Your task to perform on an android device: Open internet settings Image 0: 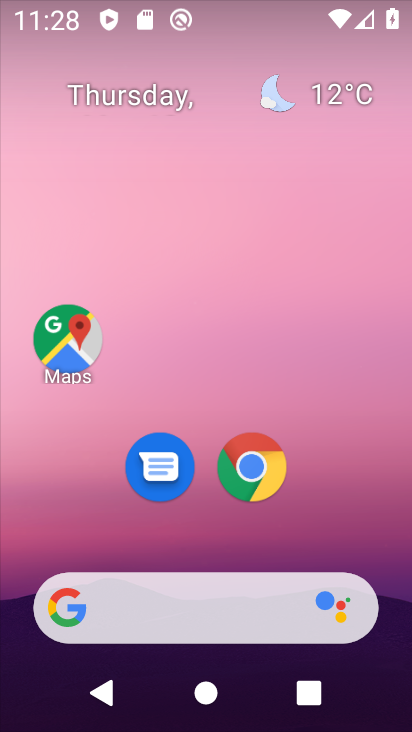
Step 0: drag from (372, 524) to (403, 33)
Your task to perform on an android device: Open internet settings Image 1: 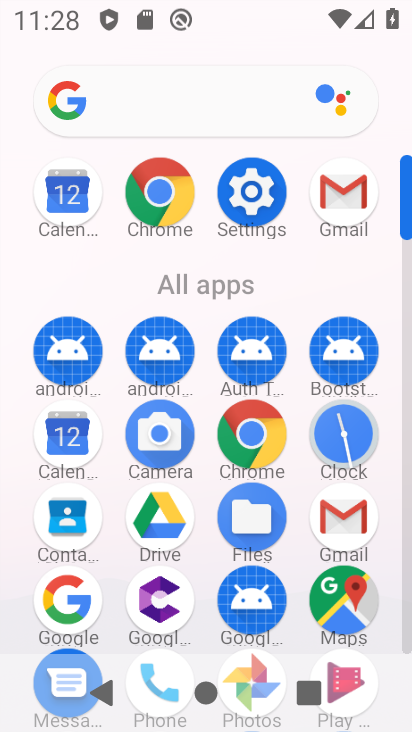
Step 1: click (255, 186)
Your task to perform on an android device: Open internet settings Image 2: 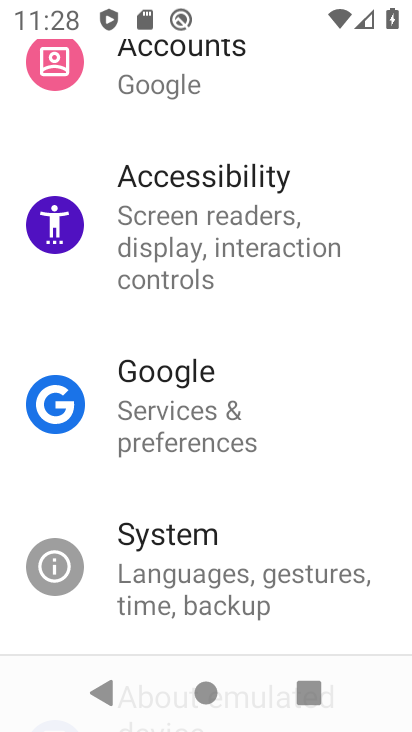
Step 2: drag from (258, 122) to (247, 568)
Your task to perform on an android device: Open internet settings Image 3: 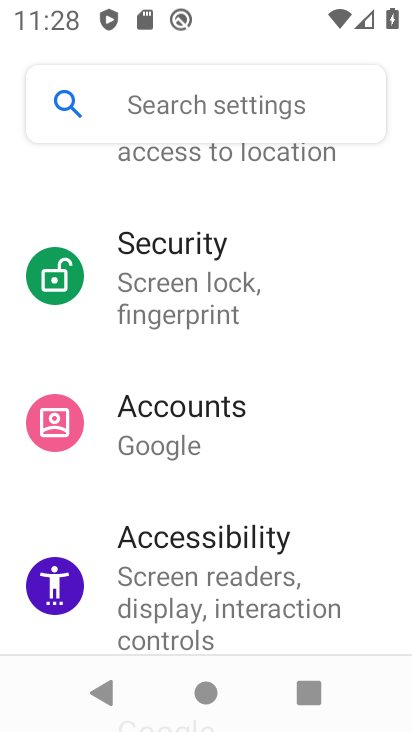
Step 3: drag from (192, 237) to (229, 607)
Your task to perform on an android device: Open internet settings Image 4: 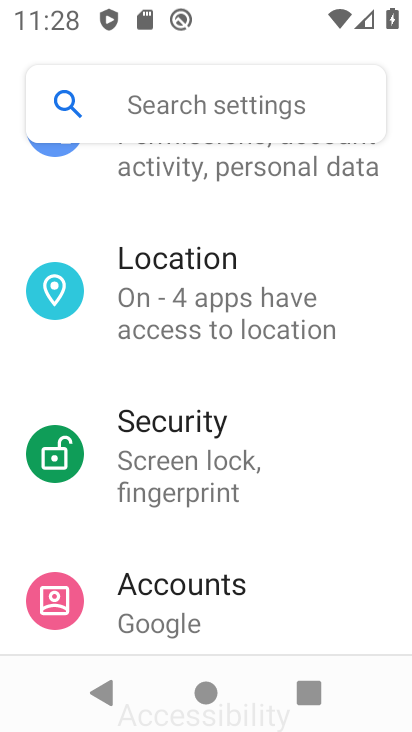
Step 4: drag from (194, 247) to (169, 662)
Your task to perform on an android device: Open internet settings Image 5: 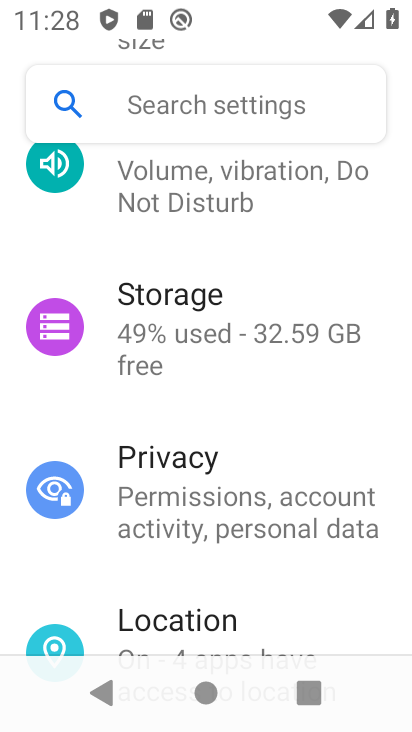
Step 5: drag from (237, 300) to (279, 608)
Your task to perform on an android device: Open internet settings Image 6: 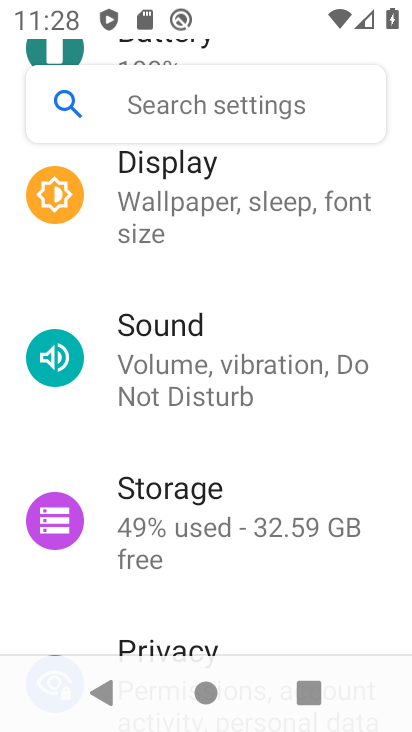
Step 6: drag from (241, 228) to (284, 600)
Your task to perform on an android device: Open internet settings Image 7: 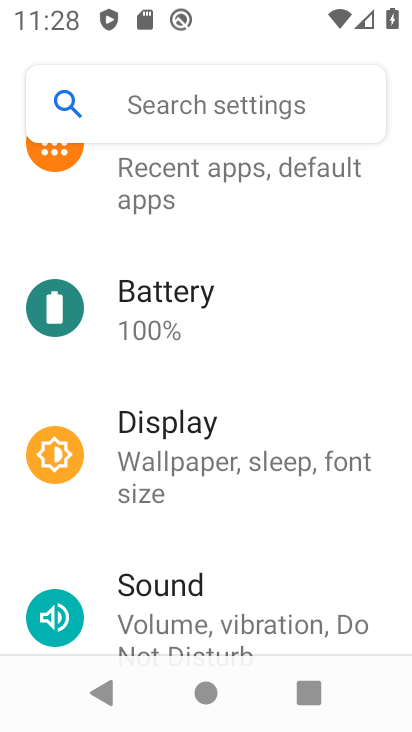
Step 7: drag from (236, 236) to (258, 651)
Your task to perform on an android device: Open internet settings Image 8: 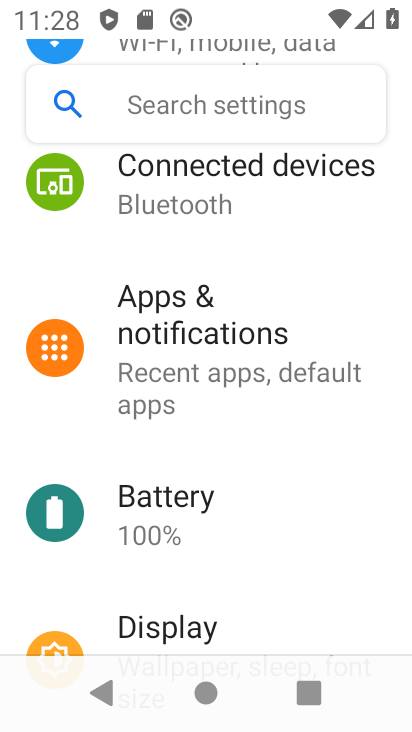
Step 8: drag from (204, 174) to (246, 558)
Your task to perform on an android device: Open internet settings Image 9: 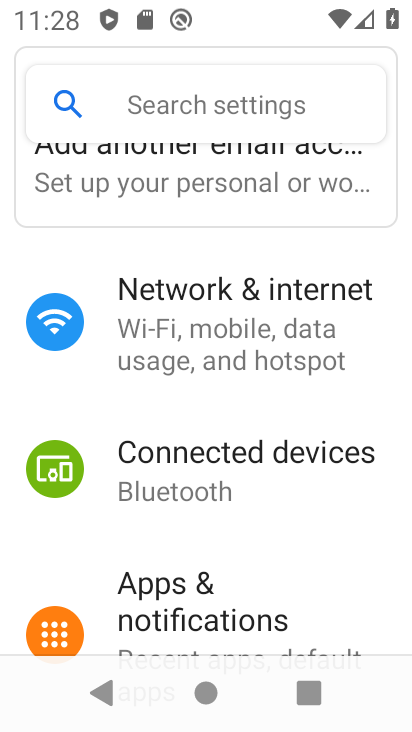
Step 9: click (216, 297)
Your task to perform on an android device: Open internet settings Image 10: 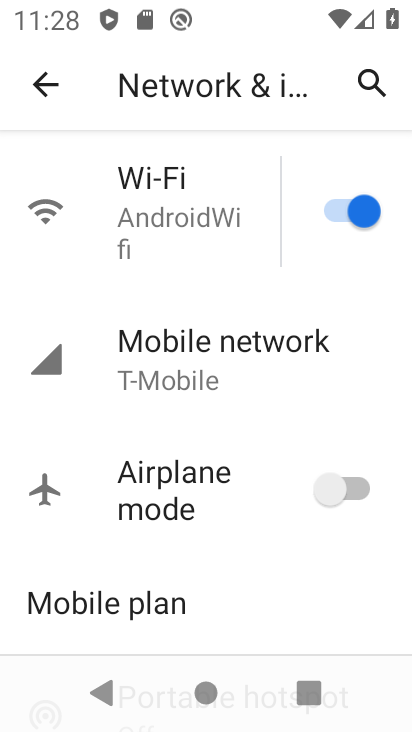
Step 10: task complete